Your task to perform on an android device: check out phone information Image 0: 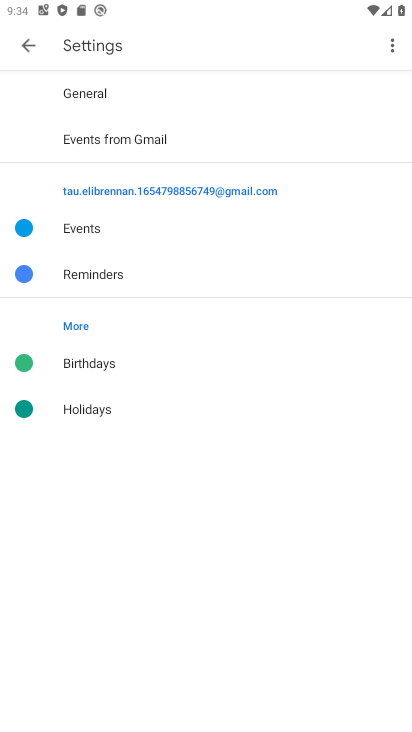
Step 0: press home button
Your task to perform on an android device: check out phone information Image 1: 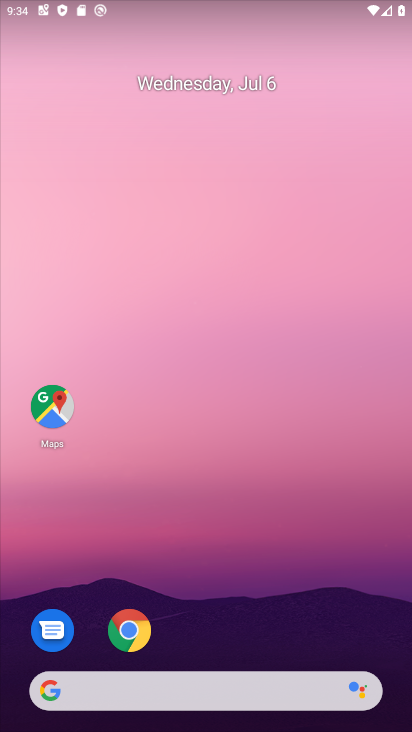
Step 1: drag from (357, 638) to (298, 132)
Your task to perform on an android device: check out phone information Image 2: 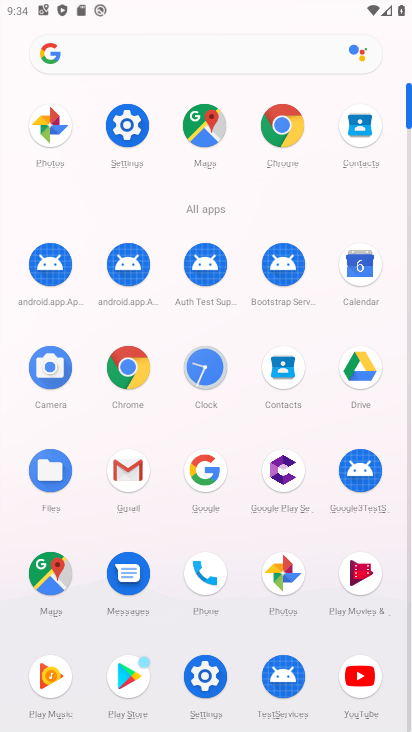
Step 2: click (203, 677)
Your task to perform on an android device: check out phone information Image 3: 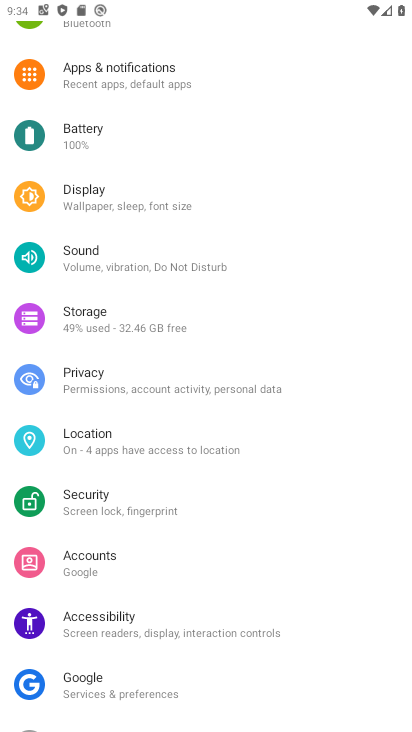
Step 3: drag from (297, 632) to (262, 246)
Your task to perform on an android device: check out phone information Image 4: 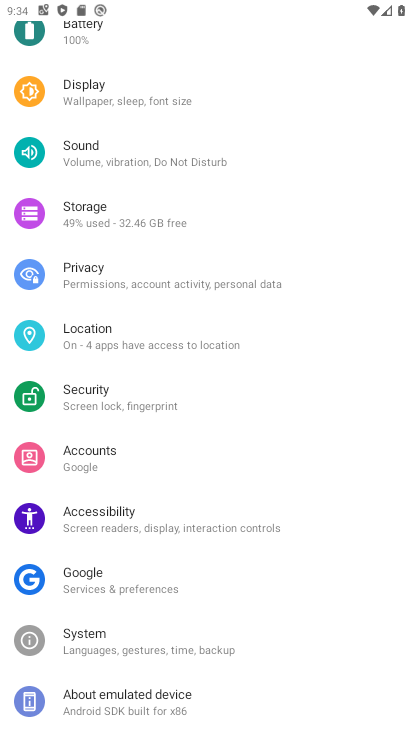
Step 4: click (122, 697)
Your task to perform on an android device: check out phone information Image 5: 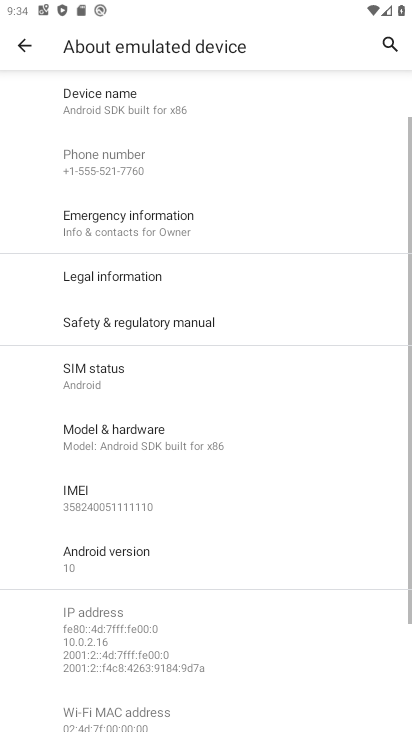
Step 5: task complete